Your task to perform on an android device: clear all cookies in the chrome app Image 0: 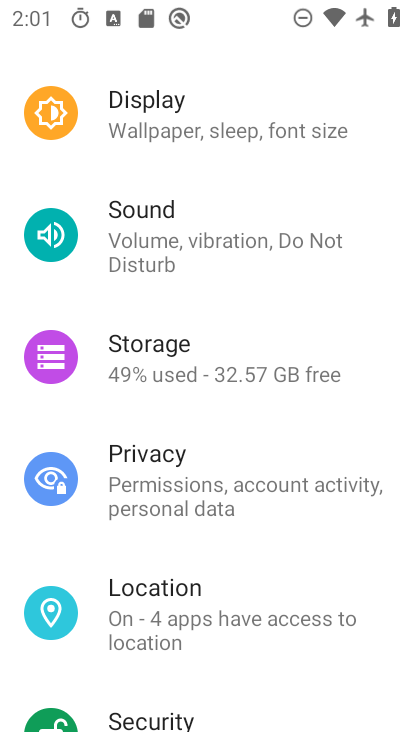
Step 0: press home button
Your task to perform on an android device: clear all cookies in the chrome app Image 1: 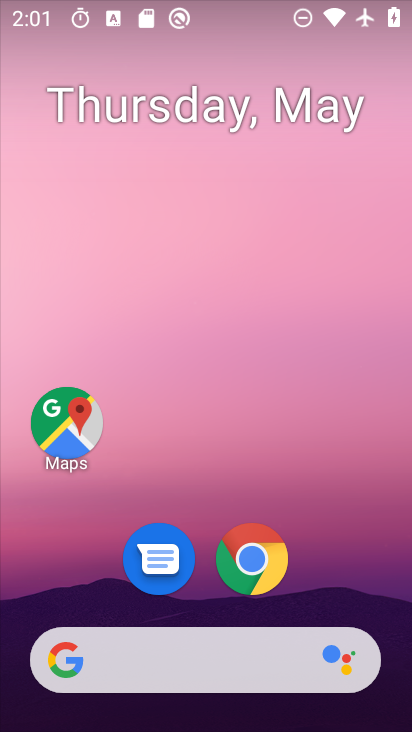
Step 1: drag from (217, 622) to (245, 0)
Your task to perform on an android device: clear all cookies in the chrome app Image 2: 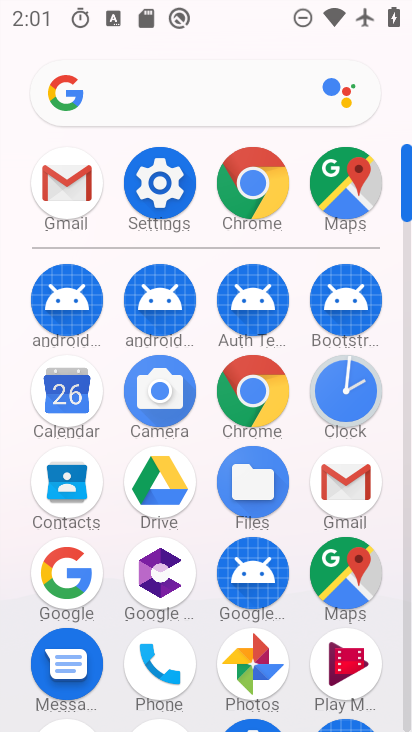
Step 2: click (273, 403)
Your task to perform on an android device: clear all cookies in the chrome app Image 3: 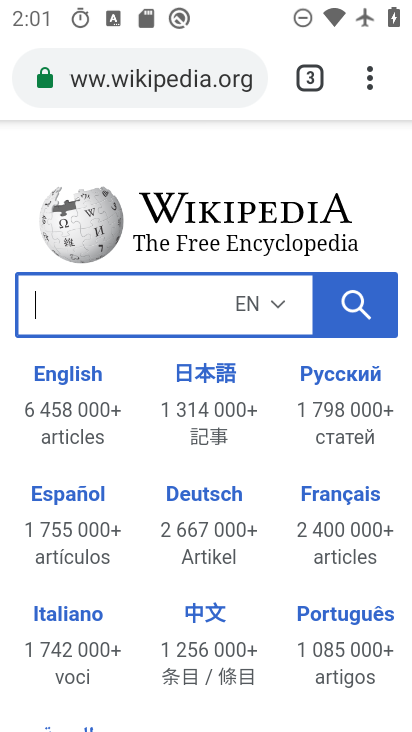
Step 3: click (368, 77)
Your task to perform on an android device: clear all cookies in the chrome app Image 4: 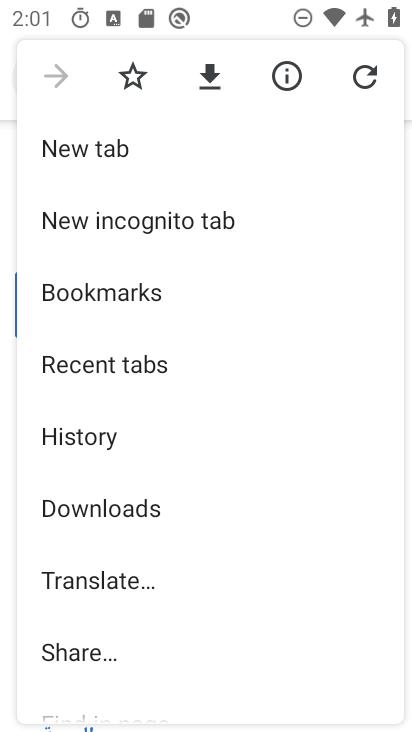
Step 4: drag from (175, 514) to (218, 206)
Your task to perform on an android device: clear all cookies in the chrome app Image 5: 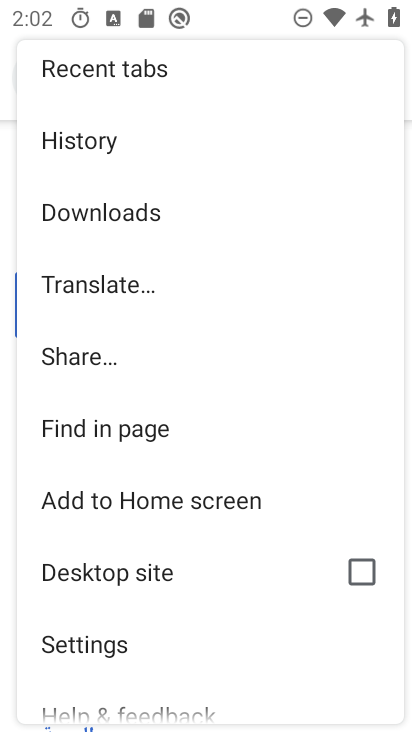
Step 5: drag from (142, 545) to (187, 338)
Your task to perform on an android device: clear all cookies in the chrome app Image 6: 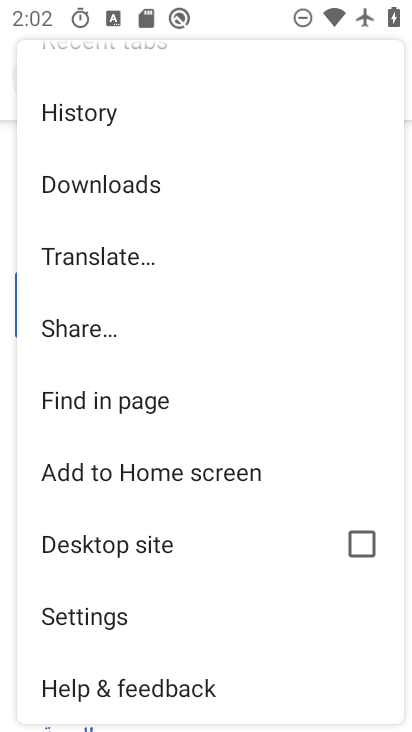
Step 6: click (139, 124)
Your task to perform on an android device: clear all cookies in the chrome app Image 7: 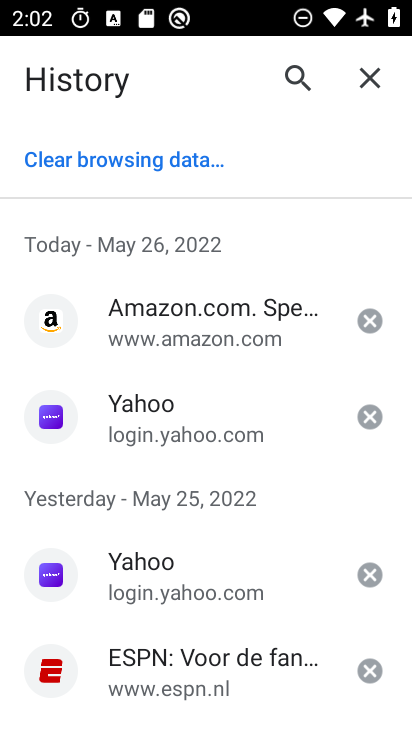
Step 7: click (117, 170)
Your task to perform on an android device: clear all cookies in the chrome app Image 8: 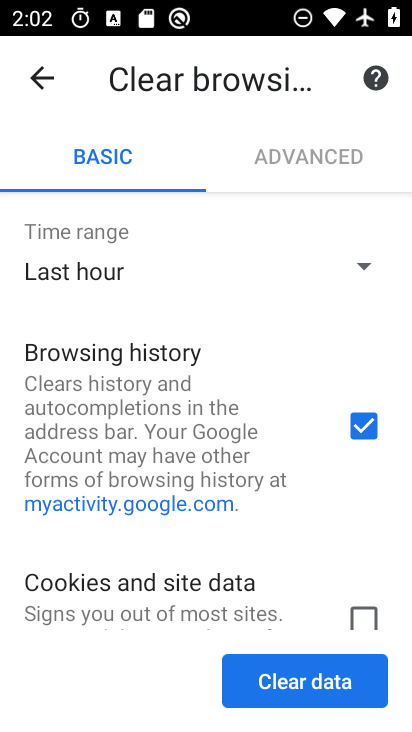
Step 8: click (364, 608)
Your task to perform on an android device: clear all cookies in the chrome app Image 9: 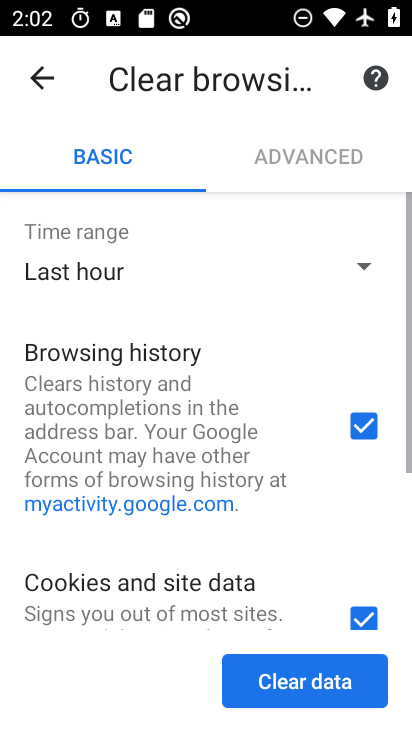
Step 9: click (356, 426)
Your task to perform on an android device: clear all cookies in the chrome app Image 10: 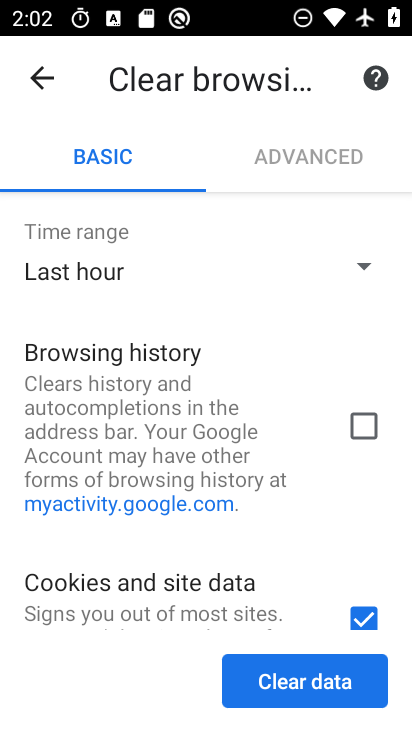
Step 10: click (295, 689)
Your task to perform on an android device: clear all cookies in the chrome app Image 11: 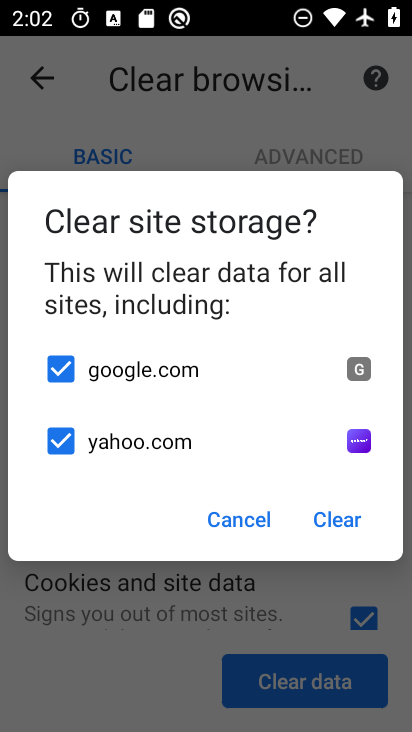
Step 11: click (344, 522)
Your task to perform on an android device: clear all cookies in the chrome app Image 12: 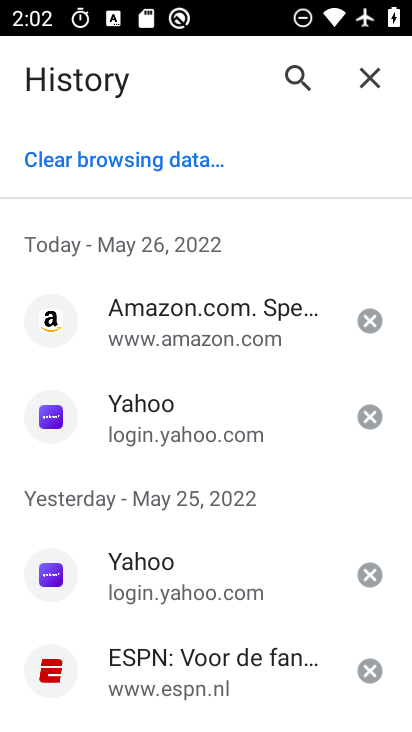
Step 12: task complete